Your task to perform on an android device: Open Yahoo.com Image 0: 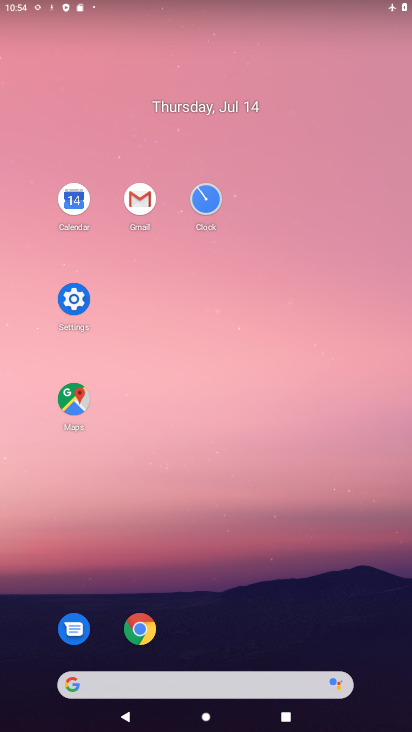
Step 0: click (143, 631)
Your task to perform on an android device: Open Yahoo.com Image 1: 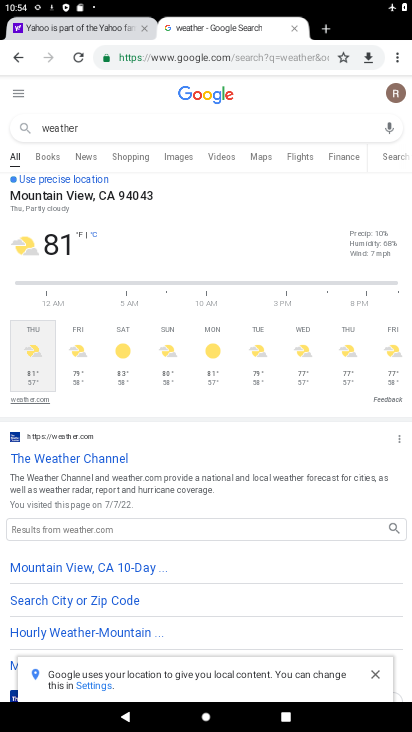
Step 1: click (332, 24)
Your task to perform on an android device: Open Yahoo.com Image 2: 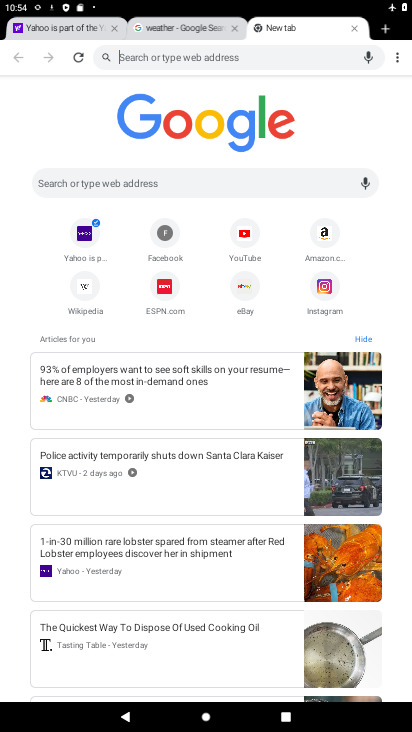
Step 2: click (90, 230)
Your task to perform on an android device: Open Yahoo.com Image 3: 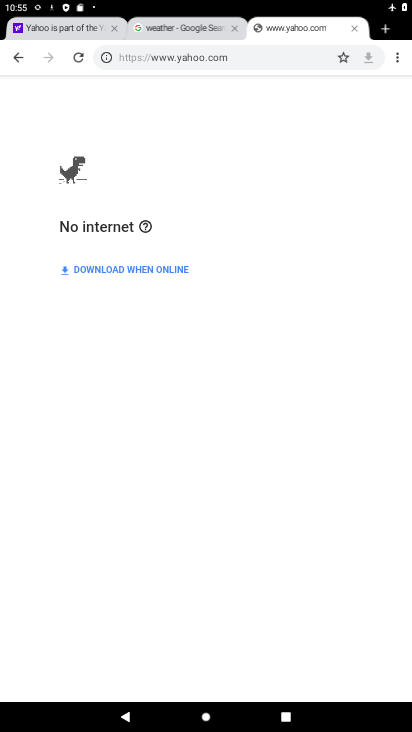
Step 3: task complete